Your task to perform on an android device: turn on sleep mode Image 0: 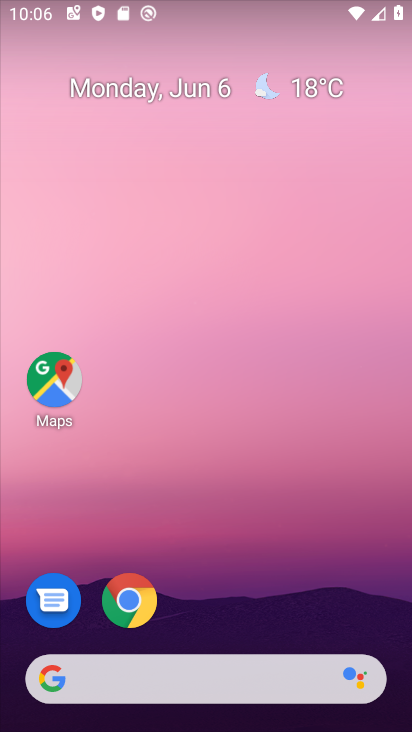
Step 0: drag from (271, 520) to (242, 13)
Your task to perform on an android device: turn on sleep mode Image 1: 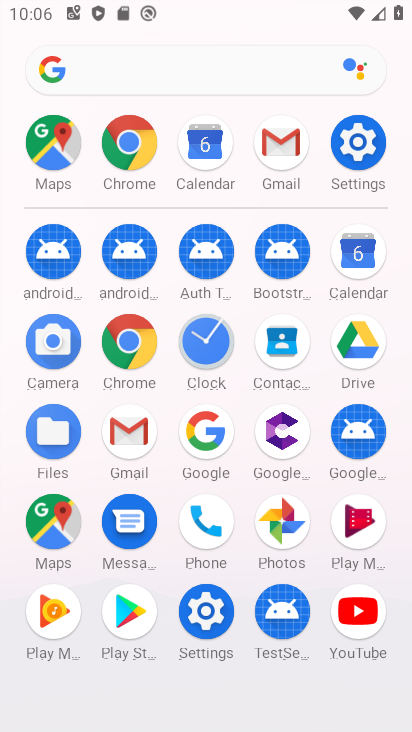
Step 1: click (205, 608)
Your task to perform on an android device: turn on sleep mode Image 2: 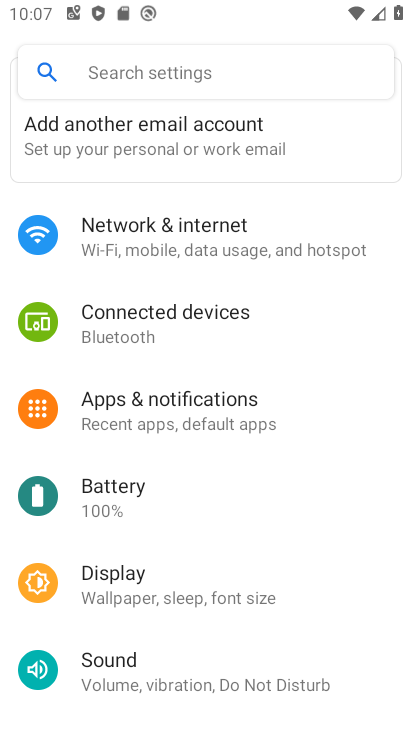
Step 2: click (259, 230)
Your task to perform on an android device: turn on sleep mode Image 3: 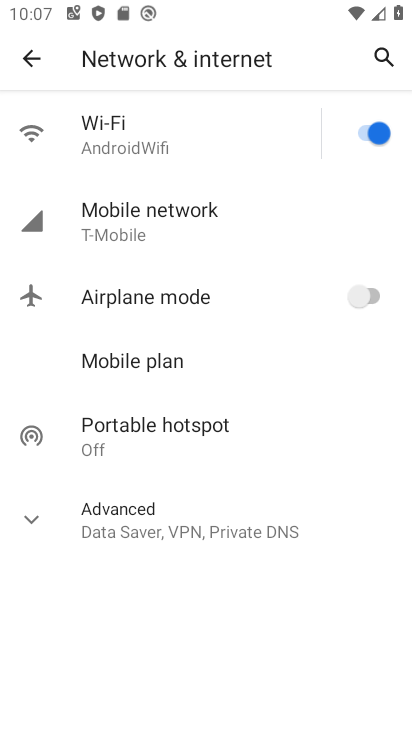
Step 3: click (28, 525)
Your task to perform on an android device: turn on sleep mode Image 4: 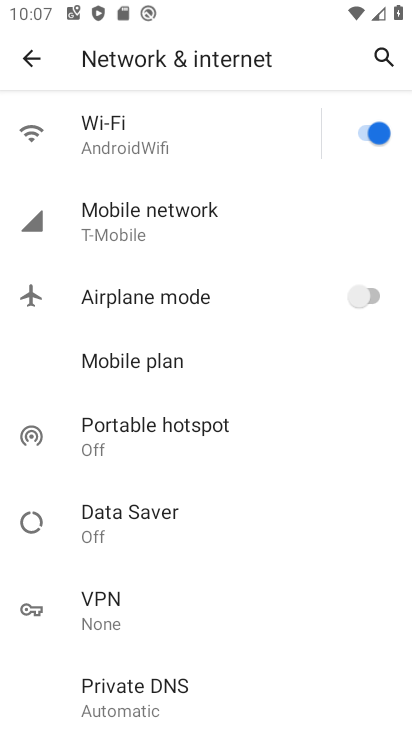
Step 4: task complete